Your task to perform on an android device: turn off location Image 0: 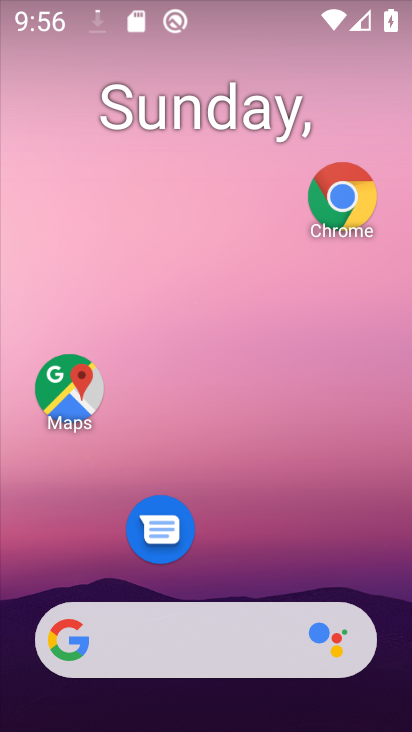
Step 0: drag from (213, 574) to (292, 37)
Your task to perform on an android device: turn off location Image 1: 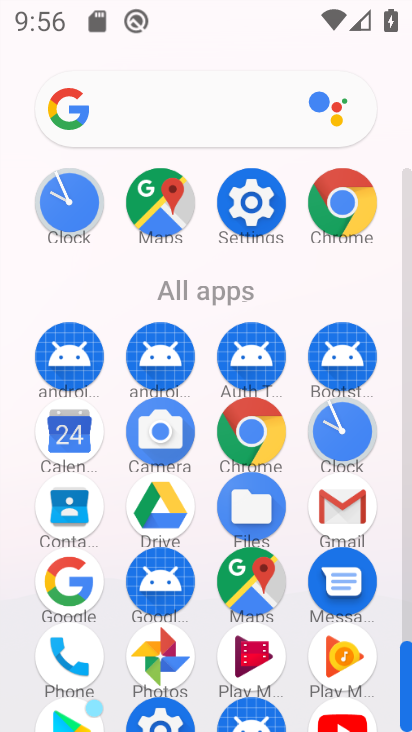
Step 1: drag from (188, 593) to (281, 252)
Your task to perform on an android device: turn off location Image 2: 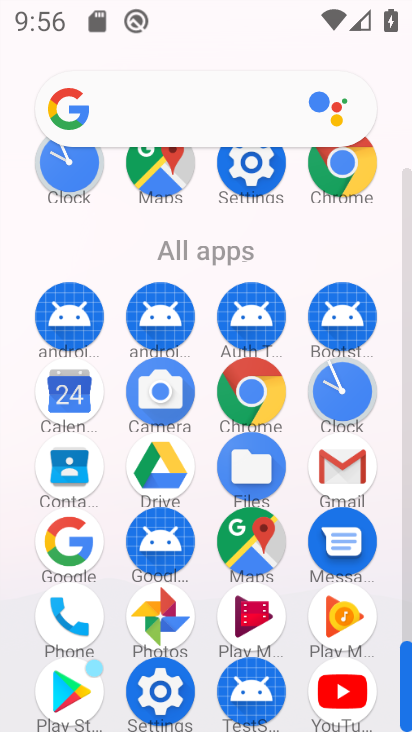
Step 2: click (172, 711)
Your task to perform on an android device: turn off location Image 3: 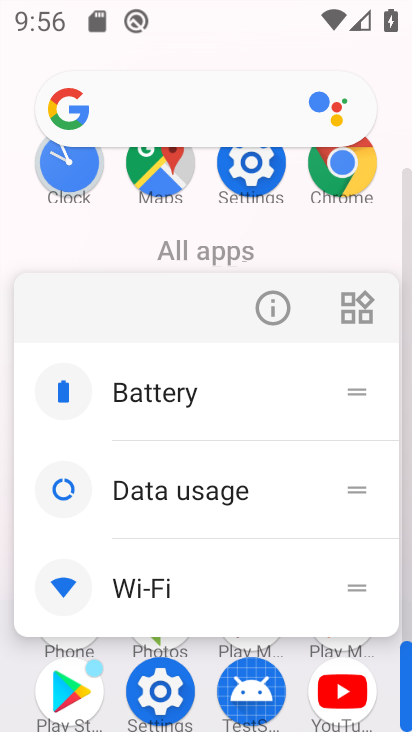
Step 3: click (188, 691)
Your task to perform on an android device: turn off location Image 4: 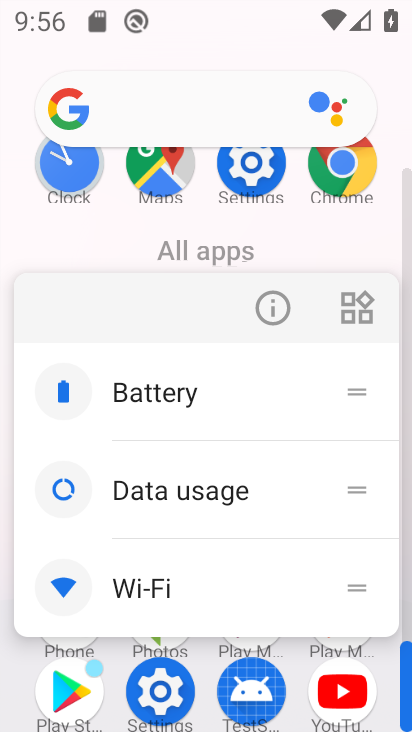
Step 4: click (162, 664)
Your task to perform on an android device: turn off location Image 5: 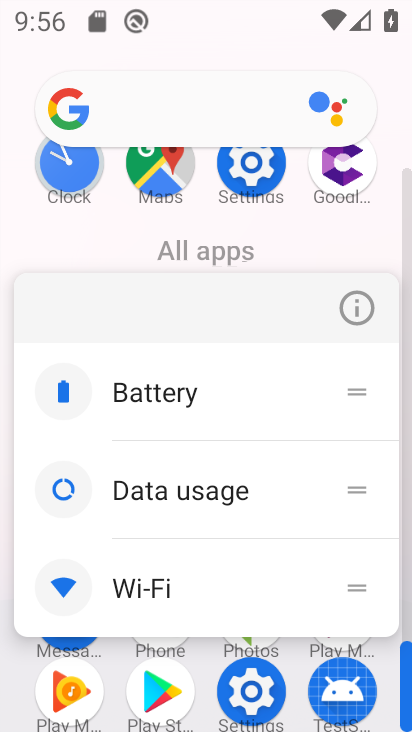
Step 5: click (294, 694)
Your task to perform on an android device: turn off location Image 6: 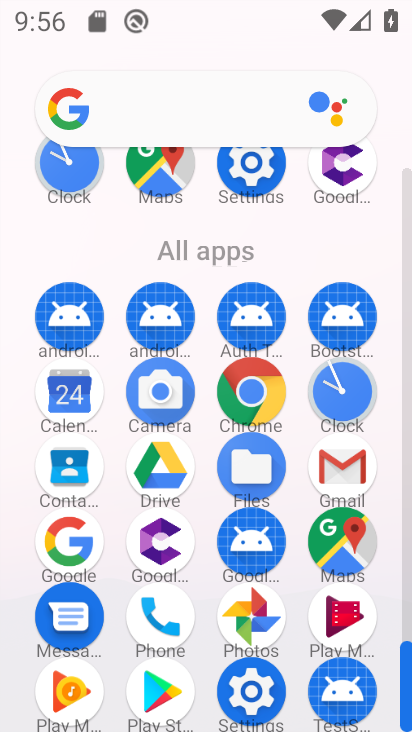
Step 6: click (232, 682)
Your task to perform on an android device: turn off location Image 7: 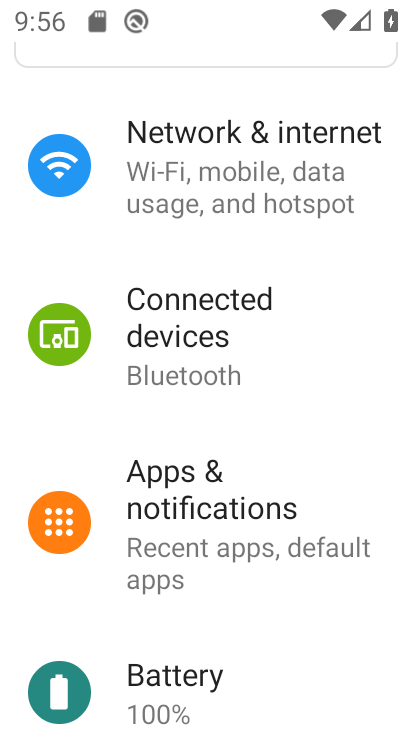
Step 7: drag from (222, 637) to (389, 141)
Your task to perform on an android device: turn off location Image 8: 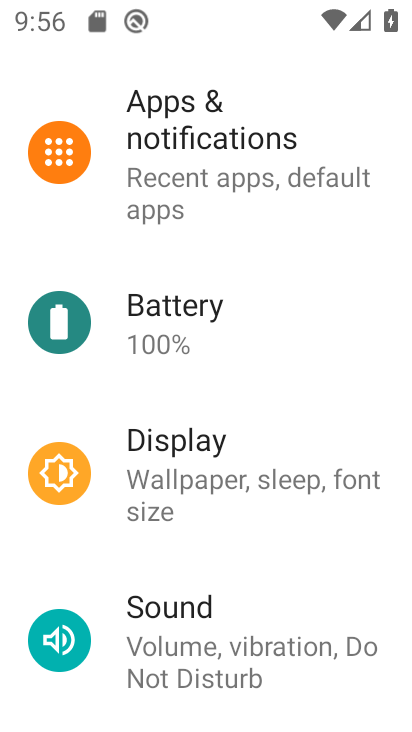
Step 8: drag from (204, 606) to (323, 83)
Your task to perform on an android device: turn off location Image 9: 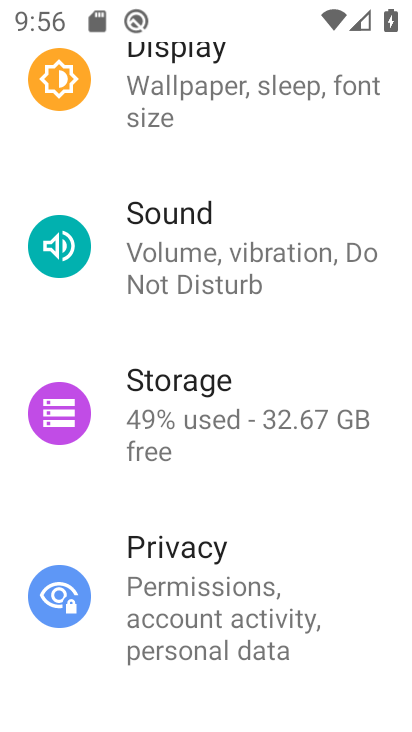
Step 9: drag from (224, 469) to (349, 163)
Your task to perform on an android device: turn off location Image 10: 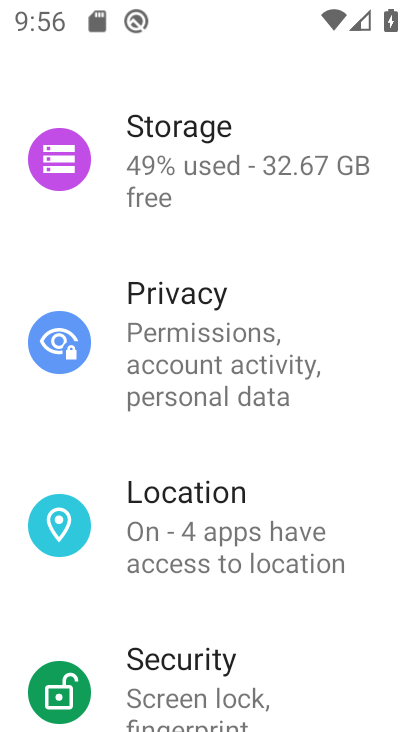
Step 10: click (284, 549)
Your task to perform on an android device: turn off location Image 11: 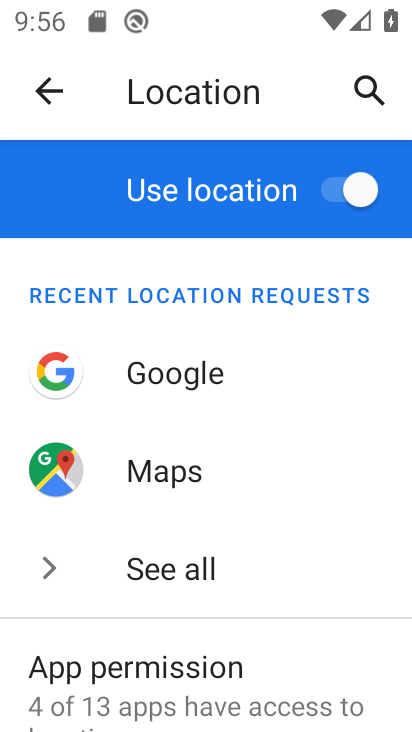
Step 11: click (335, 182)
Your task to perform on an android device: turn off location Image 12: 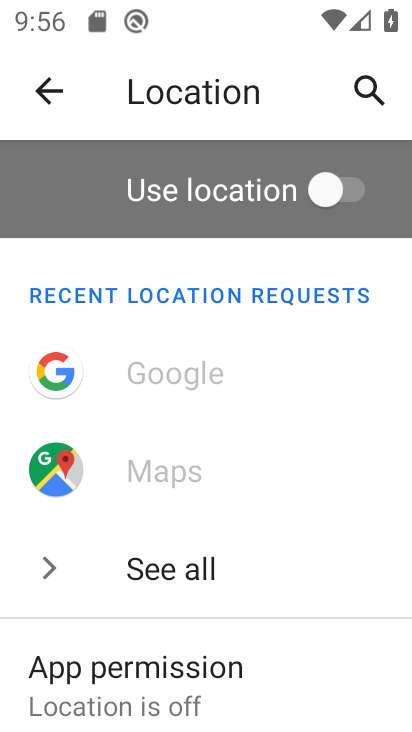
Step 12: task complete